Your task to perform on an android device: Go to Amazon Image 0: 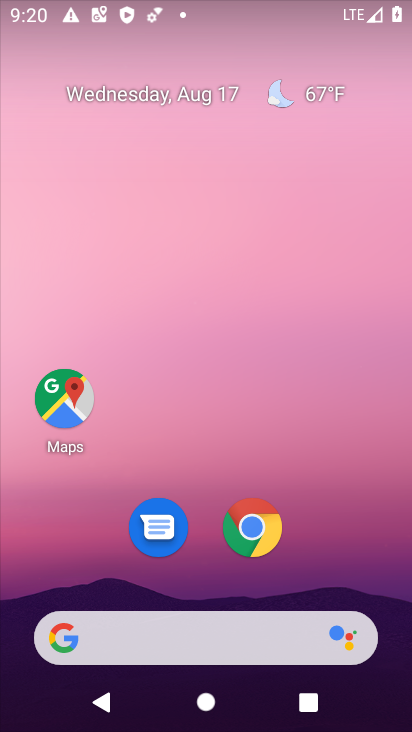
Step 0: click (166, 643)
Your task to perform on an android device: Go to Amazon Image 1: 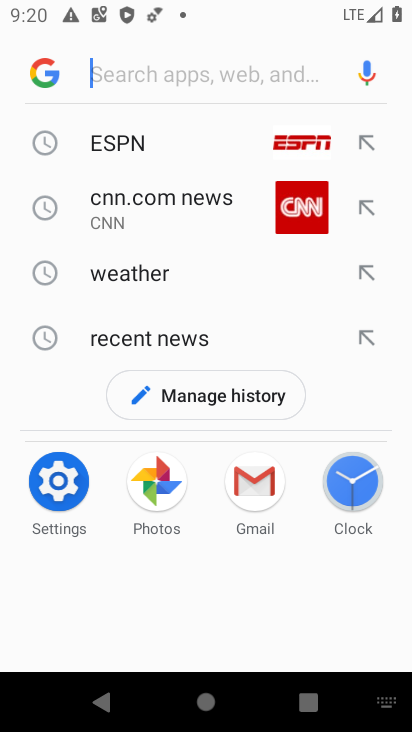
Step 1: press home button
Your task to perform on an android device: Go to Amazon Image 2: 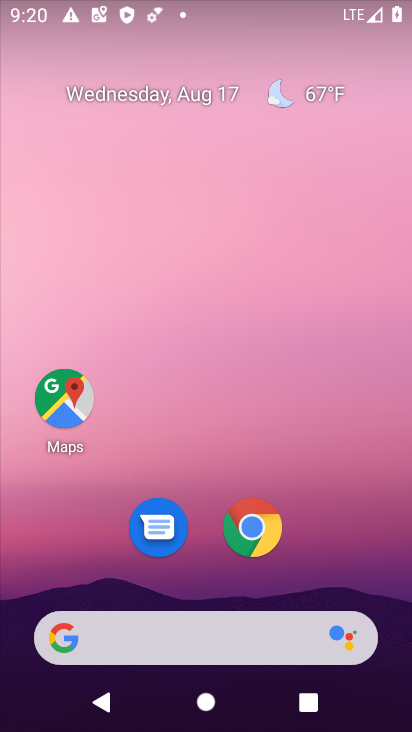
Step 2: click (259, 522)
Your task to perform on an android device: Go to Amazon Image 3: 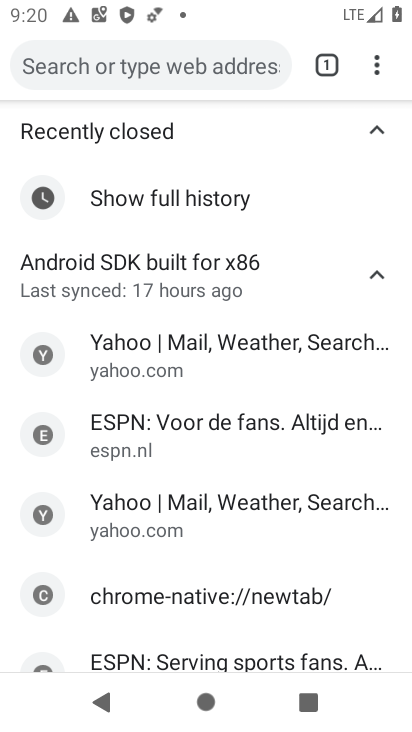
Step 3: click (328, 61)
Your task to perform on an android device: Go to Amazon Image 4: 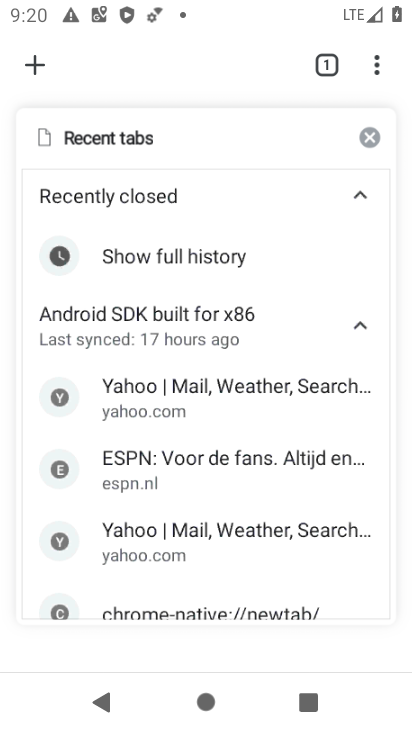
Step 4: click (32, 67)
Your task to perform on an android device: Go to Amazon Image 5: 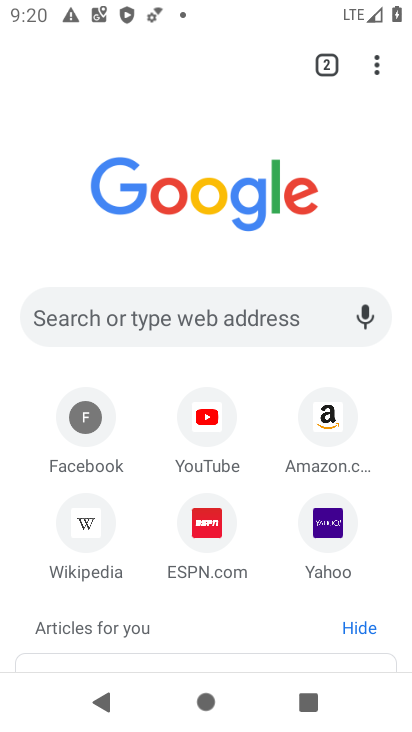
Step 5: click (314, 411)
Your task to perform on an android device: Go to Amazon Image 6: 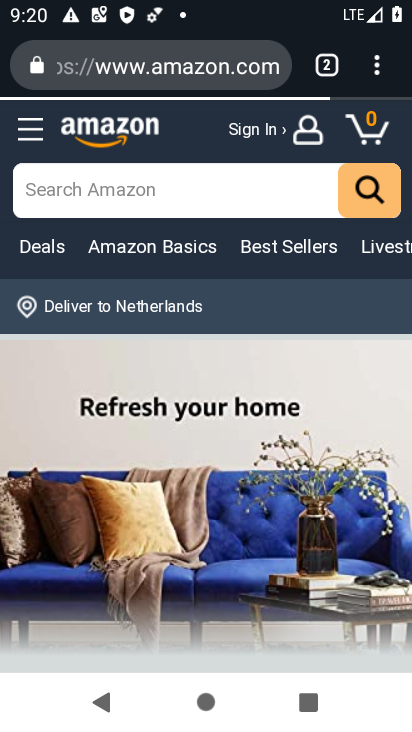
Step 6: task complete